Your task to perform on an android device: set the stopwatch Image 0: 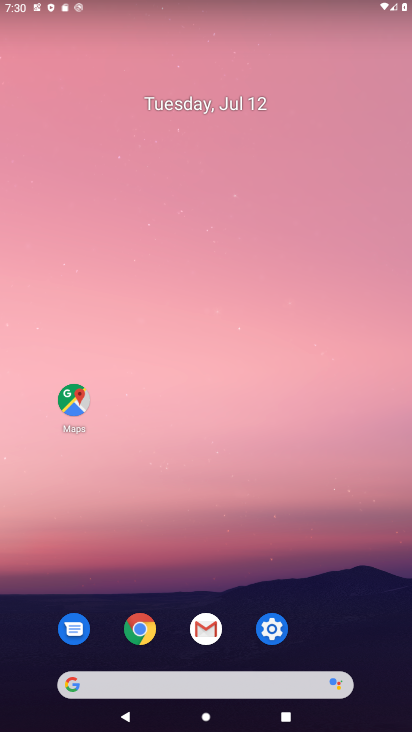
Step 0: drag from (230, 665) to (229, 217)
Your task to perform on an android device: set the stopwatch Image 1: 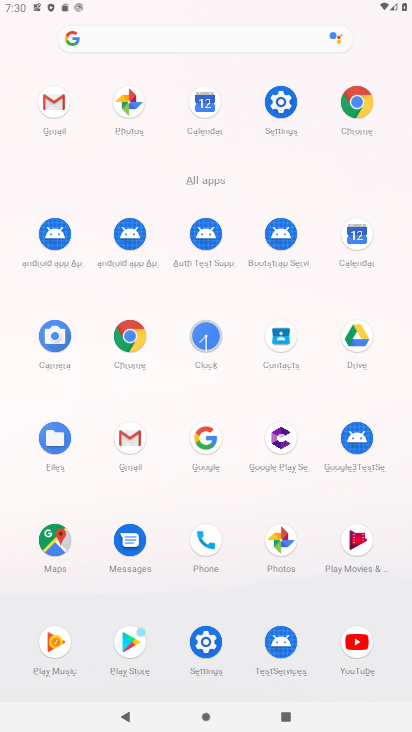
Step 1: click (221, 338)
Your task to perform on an android device: set the stopwatch Image 2: 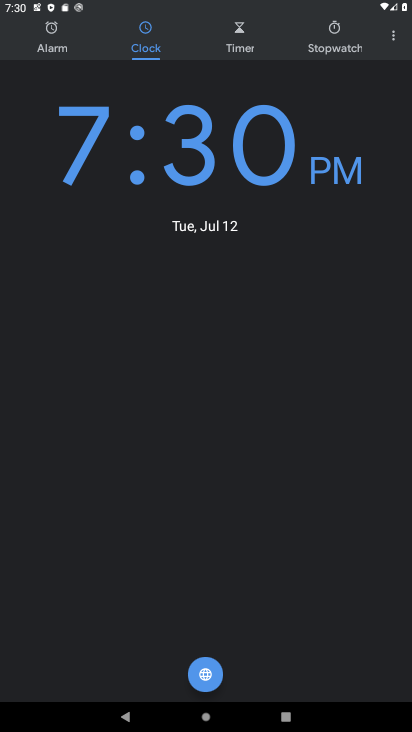
Step 2: click (316, 50)
Your task to perform on an android device: set the stopwatch Image 3: 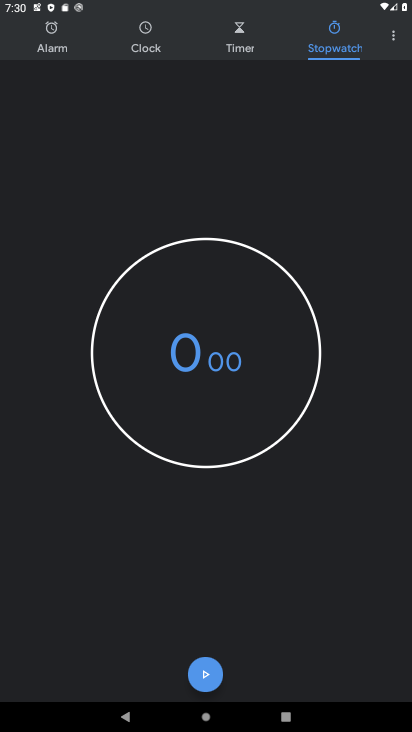
Step 3: click (212, 666)
Your task to perform on an android device: set the stopwatch Image 4: 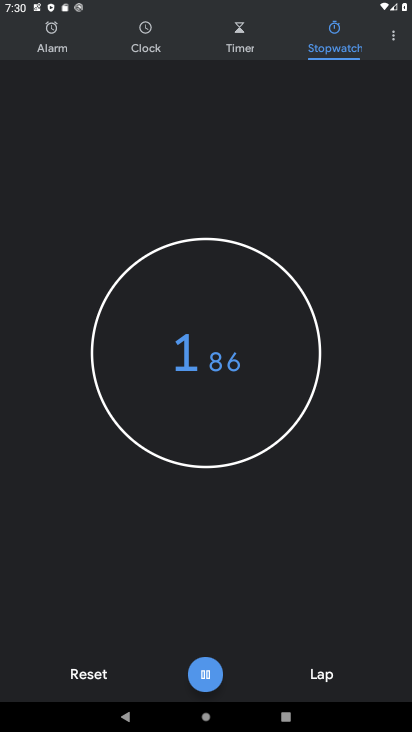
Step 4: click (212, 666)
Your task to perform on an android device: set the stopwatch Image 5: 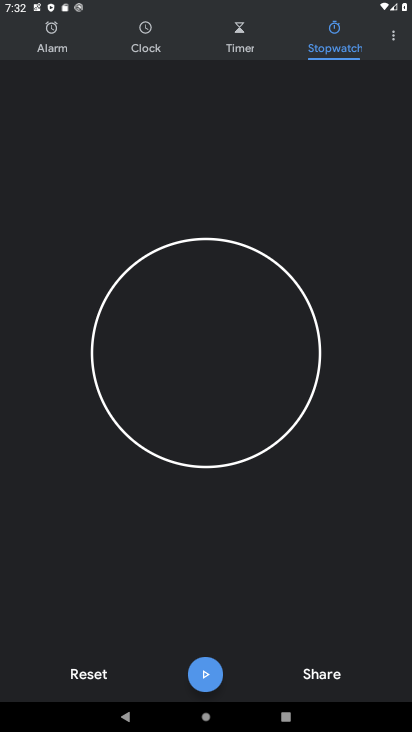
Step 5: task complete